Your task to perform on an android device: View the shopping cart on walmart. Add "apple airpods" to the cart on walmart Image 0: 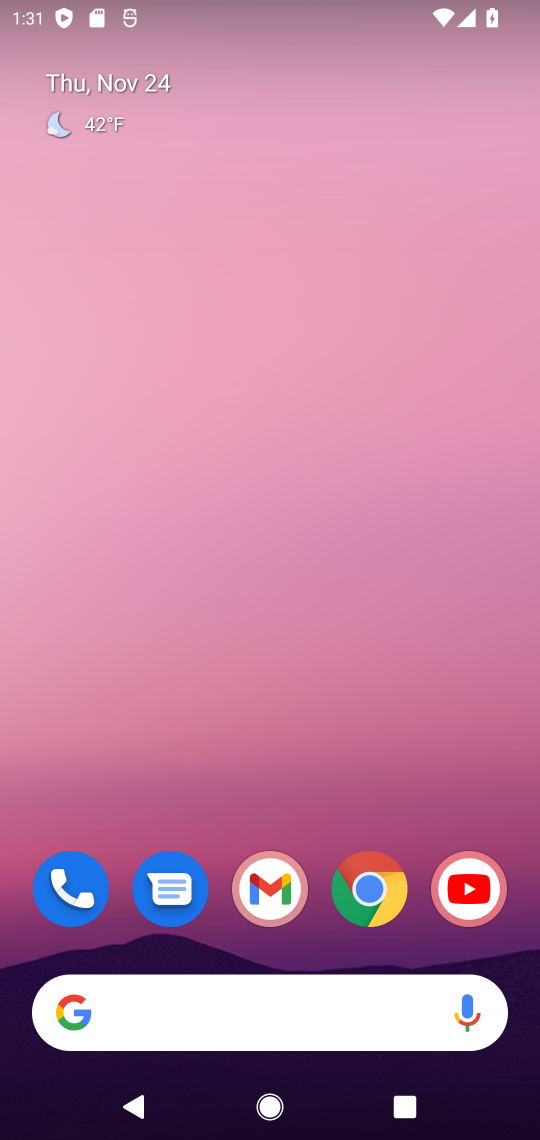
Step 0: click (359, 898)
Your task to perform on an android device: View the shopping cart on walmart. Add "apple airpods" to the cart on walmart Image 1: 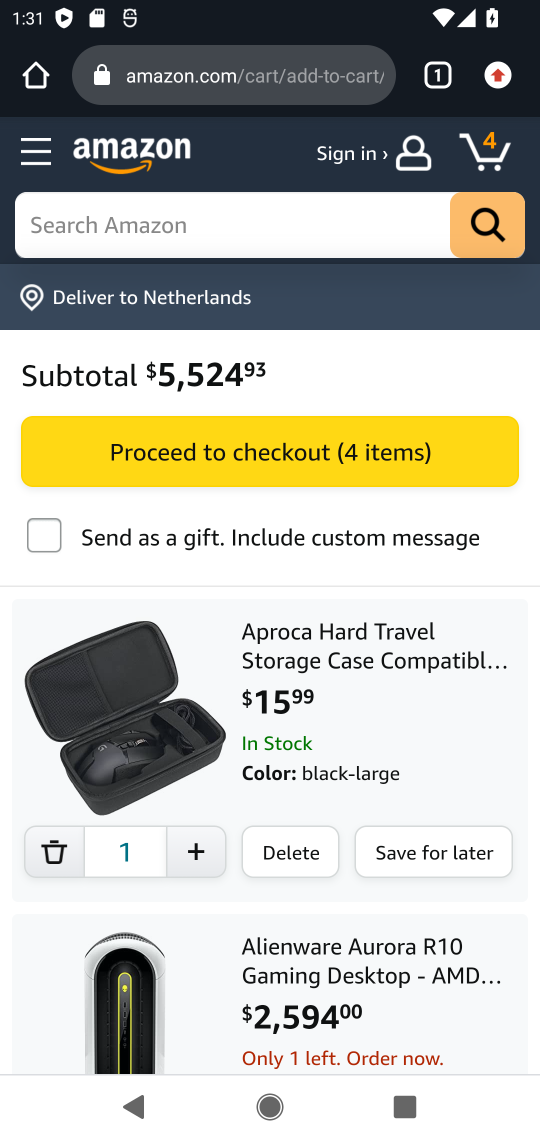
Step 1: click (181, 76)
Your task to perform on an android device: View the shopping cart on walmart. Add "apple airpods" to the cart on walmart Image 2: 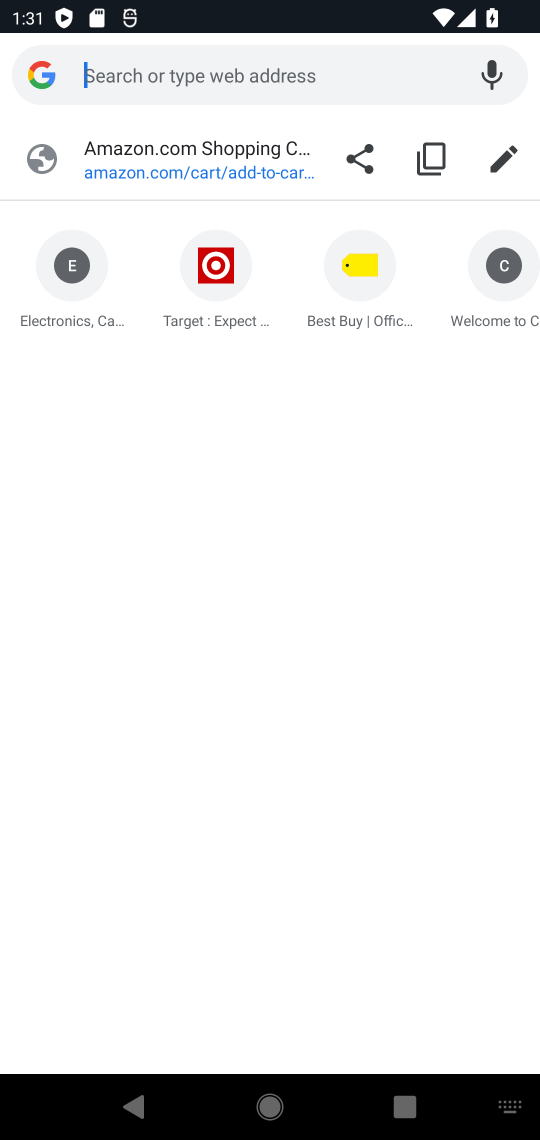
Step 2: type "walmart.com"
Your task to perform on an android device: View the shopping cart on walmart. Add "apple airpods" to the cart on walmart Image 3: 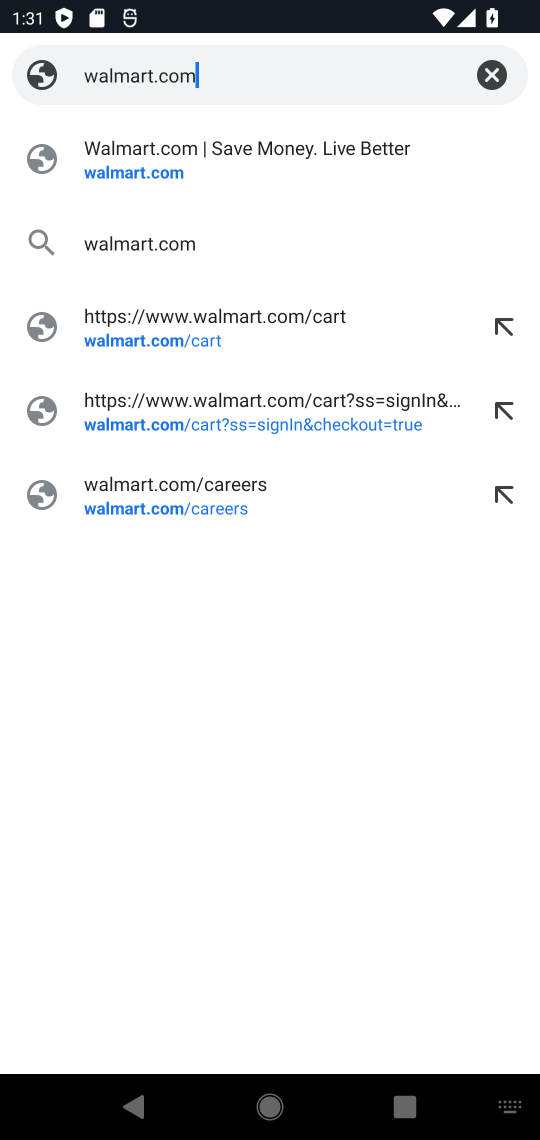
Step 3: click (121, 171)
Your task to perform on an android device: View the shopping cart on walmart. Add "apple airpods" to the cart on walmart Image 4: 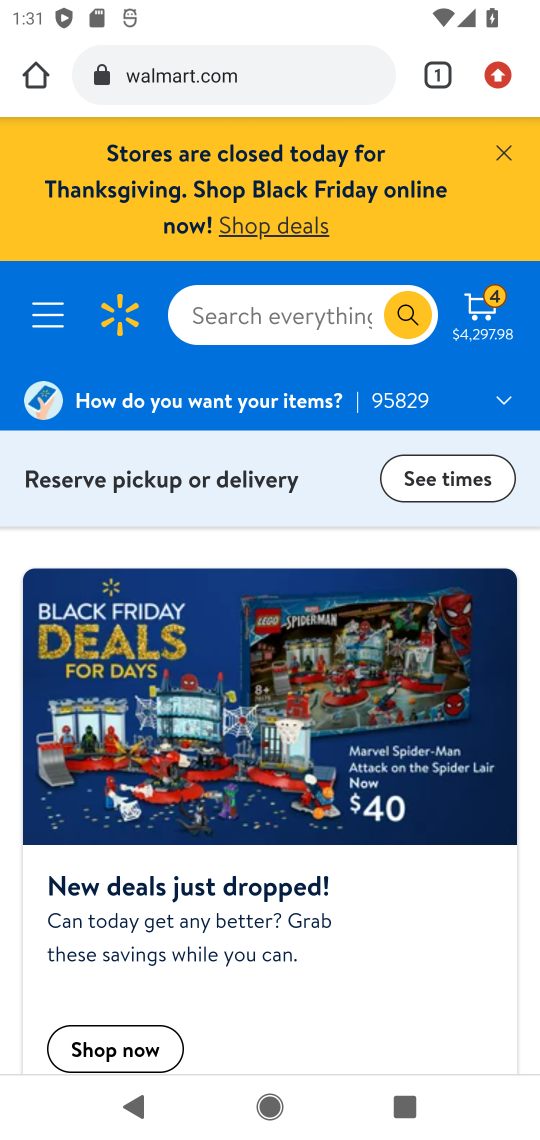
Step 4: click (490, 314)
Your task to perform on an android device: View the shopping cart on walmart. Add "apple airpods" to the cart on walmart Image 5: 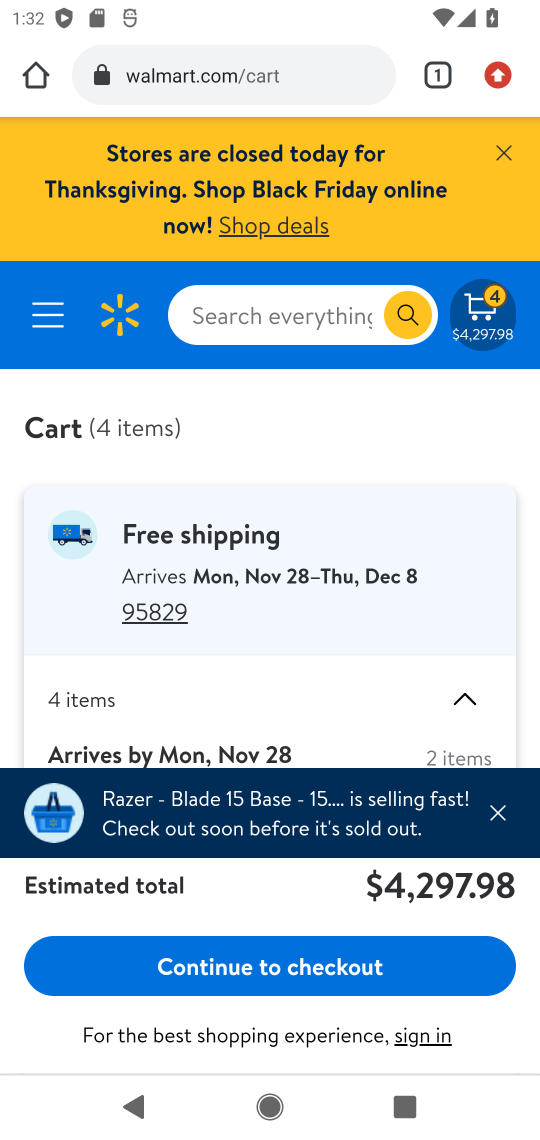
Step 5: drag from (366, 572) to (372, 307)
Your task to perform on an android device: View the shopping cart on walmart. Add "apple airpods" to the cart on walmart Image 6: 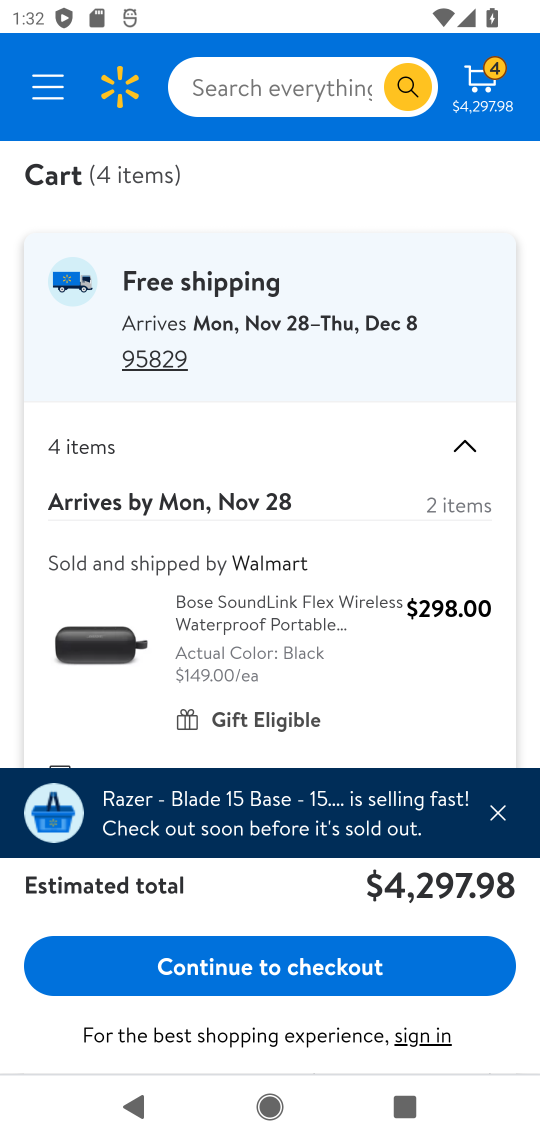
Step 6: click (247, 91)
Your task to perform on an android device: View the shopping cart on walmart. Add "apple airpods" to the cart on walmart Image 7: 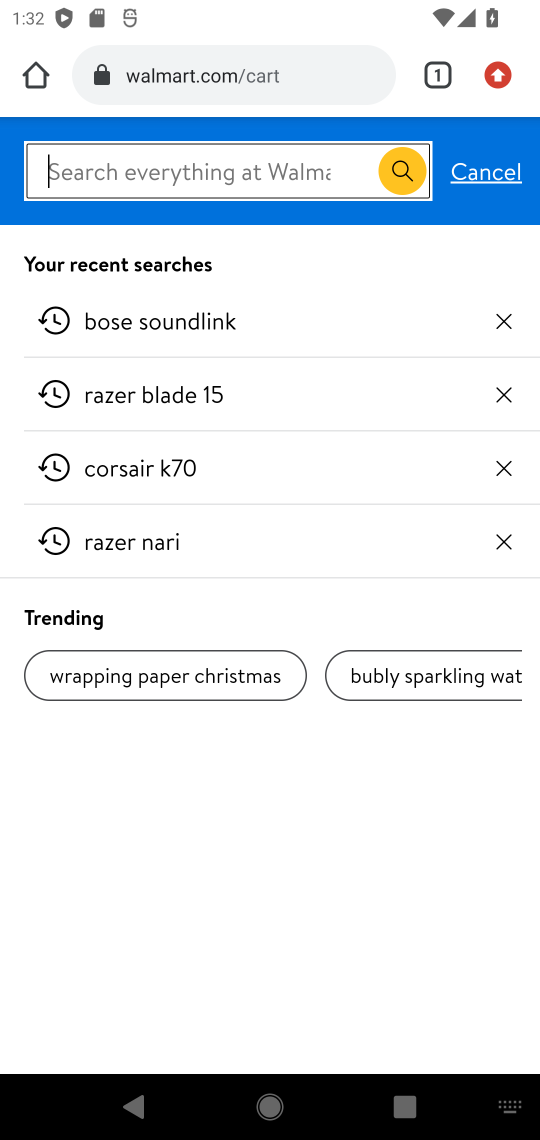
Step 7: type "apple airpods"
Your task to perform on an android device: View the shopping cart on walmart. Add "apple airpods" to the cart on walmart Image 8: 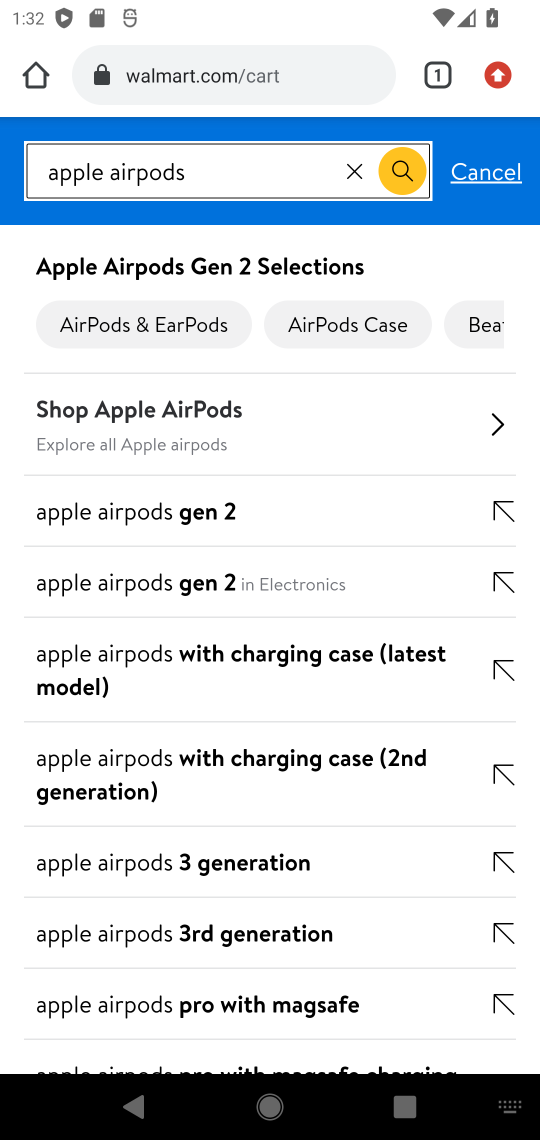
Step 8: click (387, 173)
Your task to perform on an android device: View the shopping cart on walmart. Add "apple airpods" to the cart on walmart Image 9: 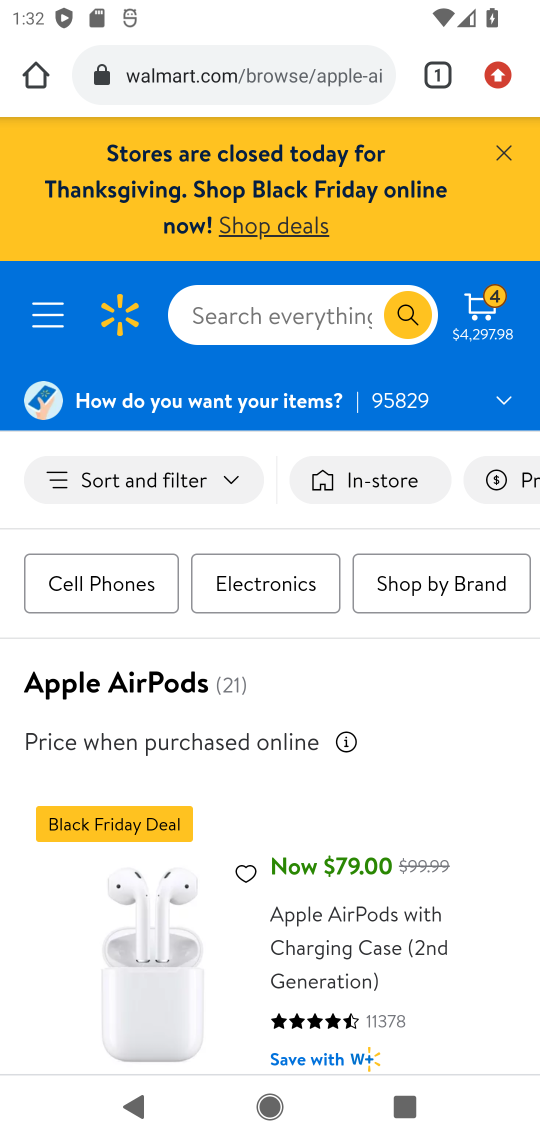
Step 9: drag from (249, 668) to (296, 302)
Your task to perform on an android device: View the shopping cart on walmart. Add "apple airpods" to the cart on walmart Image 10: 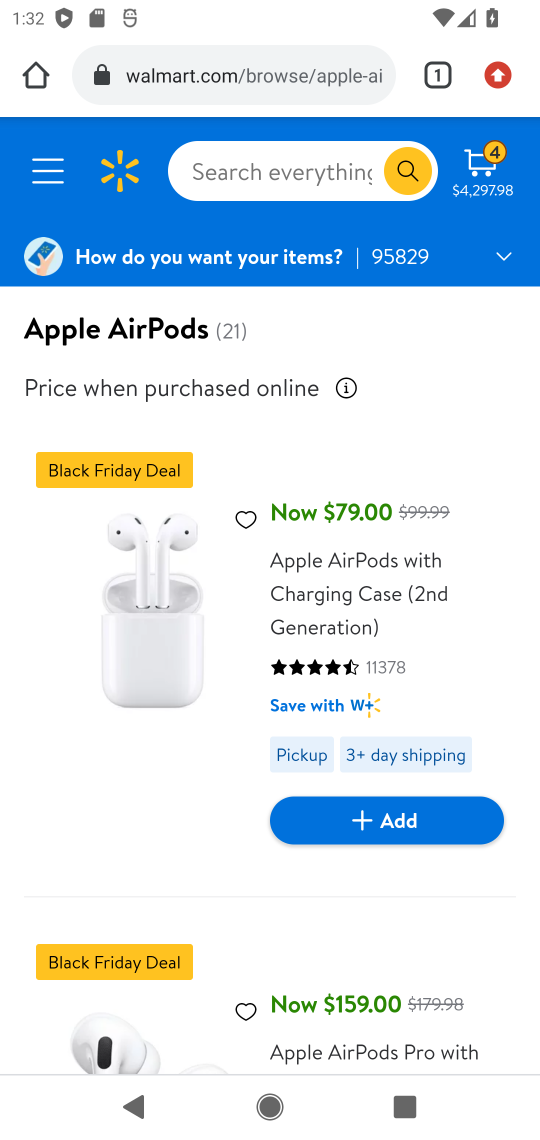
Step 10: click (388, 817)
Your task to perform on an android device: View the shopping cart on walmart. Add "apple airpods" to the cart on walmart Image 11: 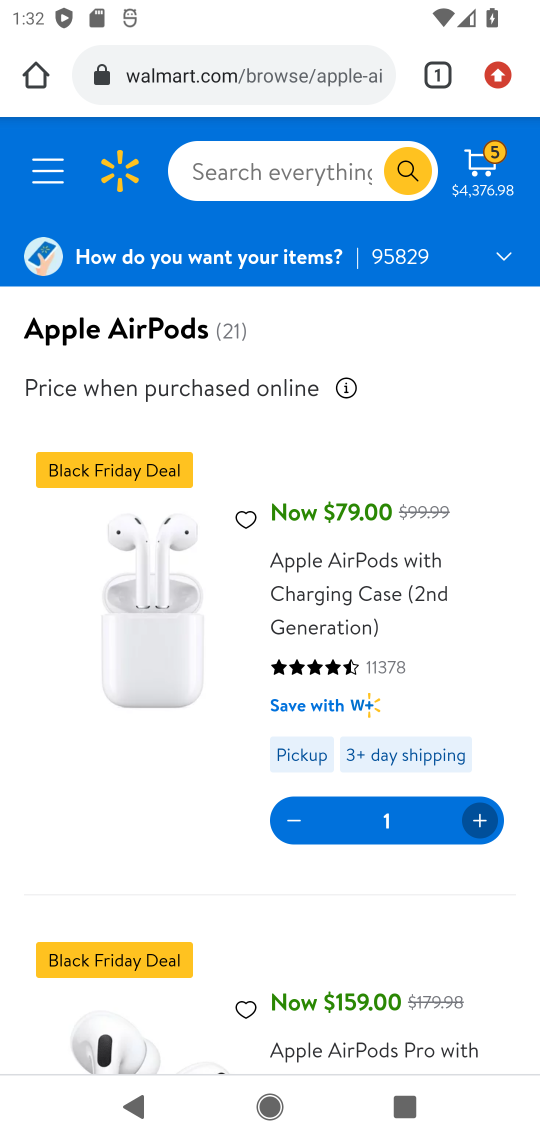
Step 11: task complete